Your task to perform on an android device: Toggle the flashlight Image 0: 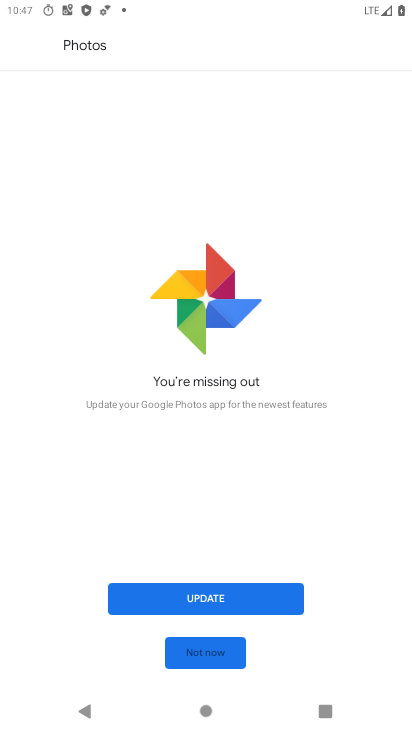
Step 0: type "                                                        "
Your task to perform on an android device: Toggle the flashlight Image 1: 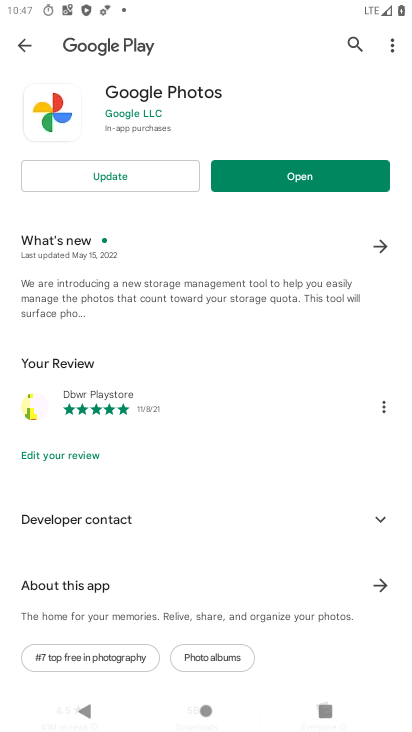
Step 1: press home button
Your task to perform on an android device: Toggle the flashlight Image 2: 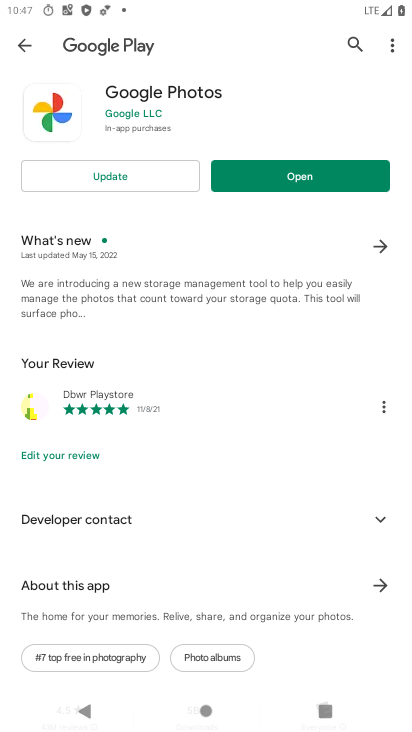
Step 2: type "                                                                         "
Your task to perform on an android device: Toggle the flashlight Image 3: 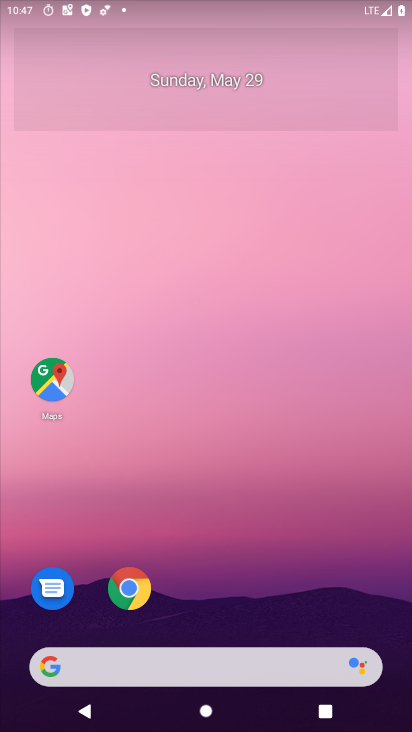
Step 3: task complete